Your task to perform on an android device: turn notification dots off Image 0: 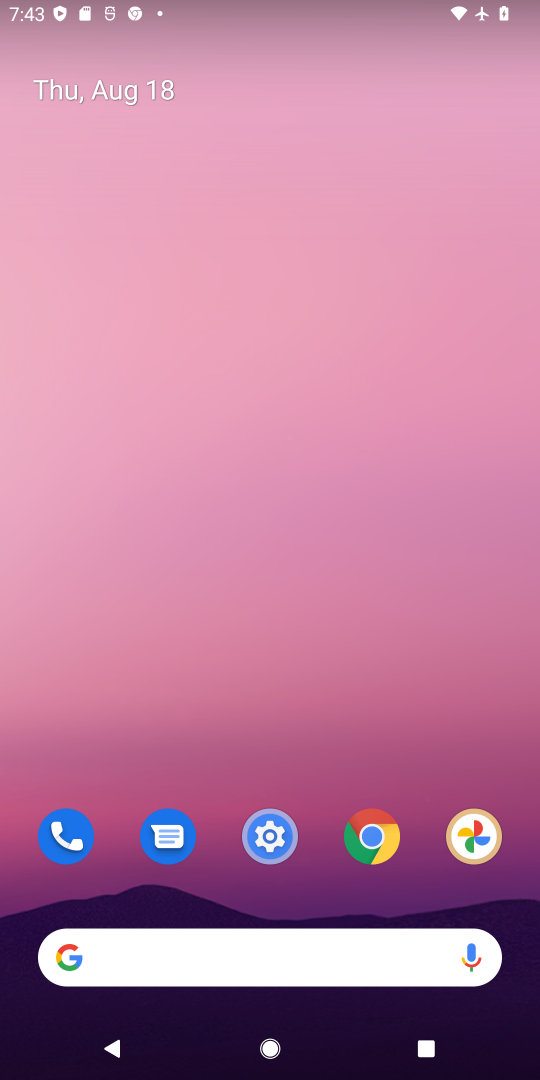
Step 0: drag from (318, 753) to (256, 144)
Your task to perform on an android device: turn notification dots off Image 1: 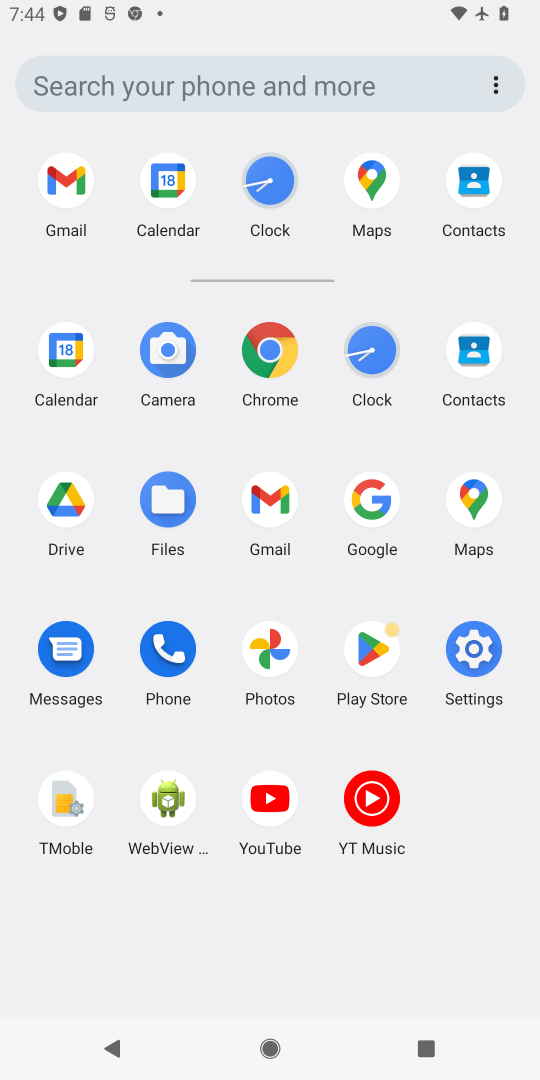
Step 1: click (465, 647)
Your task to perform on an android device: turn notification dots off Image 2: 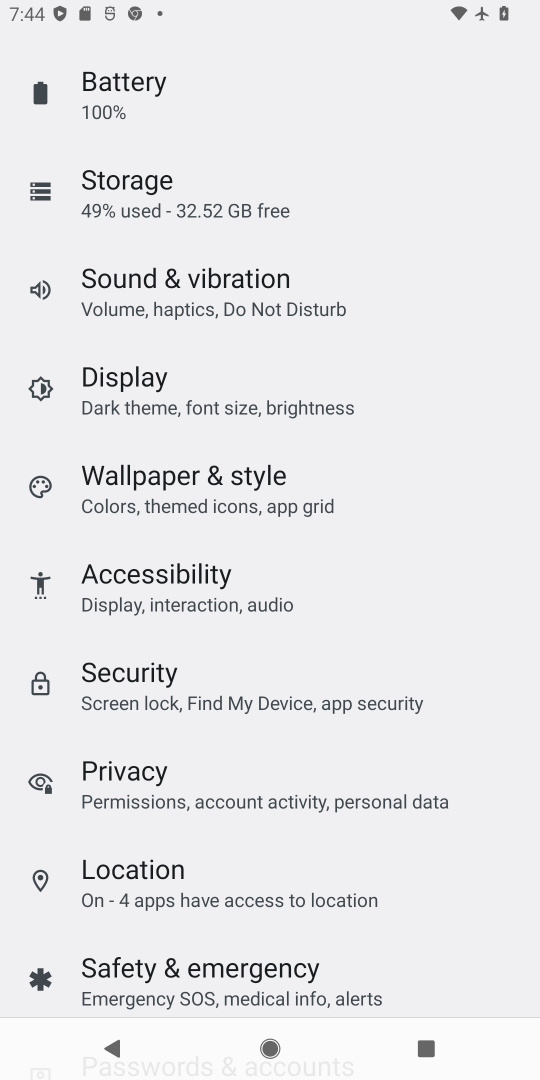
Step 2: drag from (373, 222) to (260, 801)
Your task to perform on an android device: turn notification dots off Image 3: 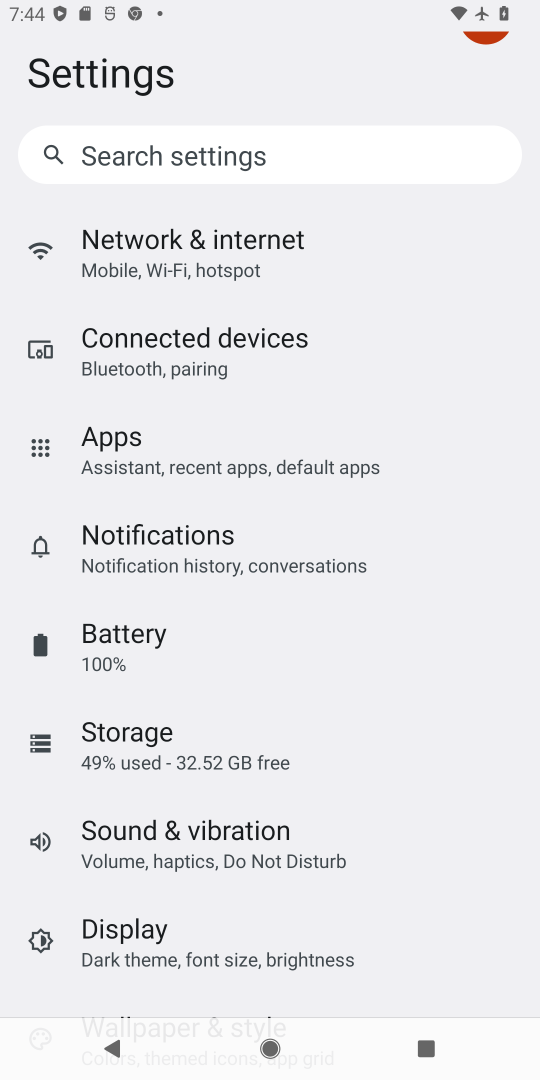
Step 3: click (196, 566)
Your task to perform on an android device: turn notification dots off Image 4: 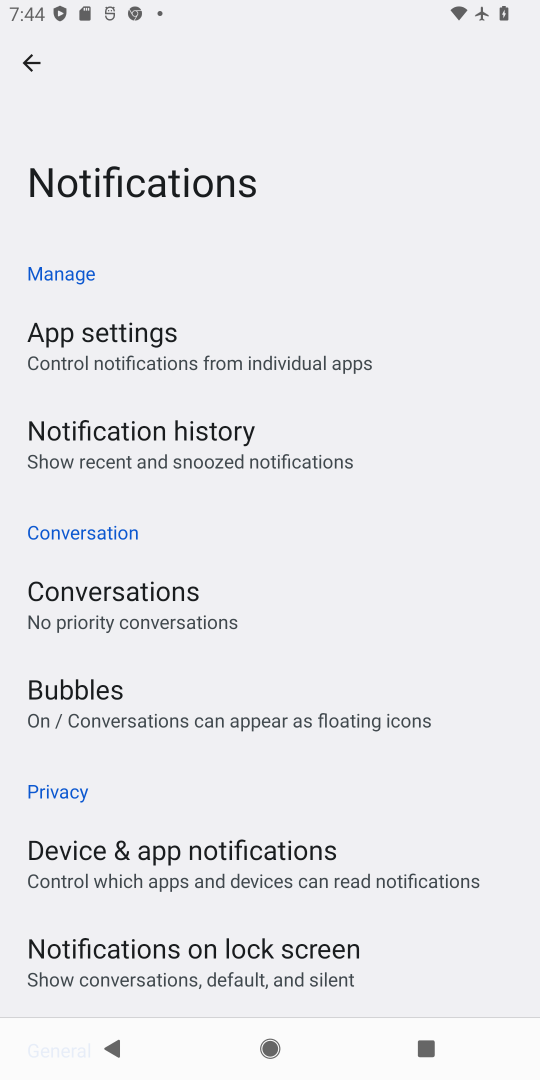
Step 4: drag from (279, 923) to (250, 422)
Your task to perform on an android device: turn notification dots off Image 5: 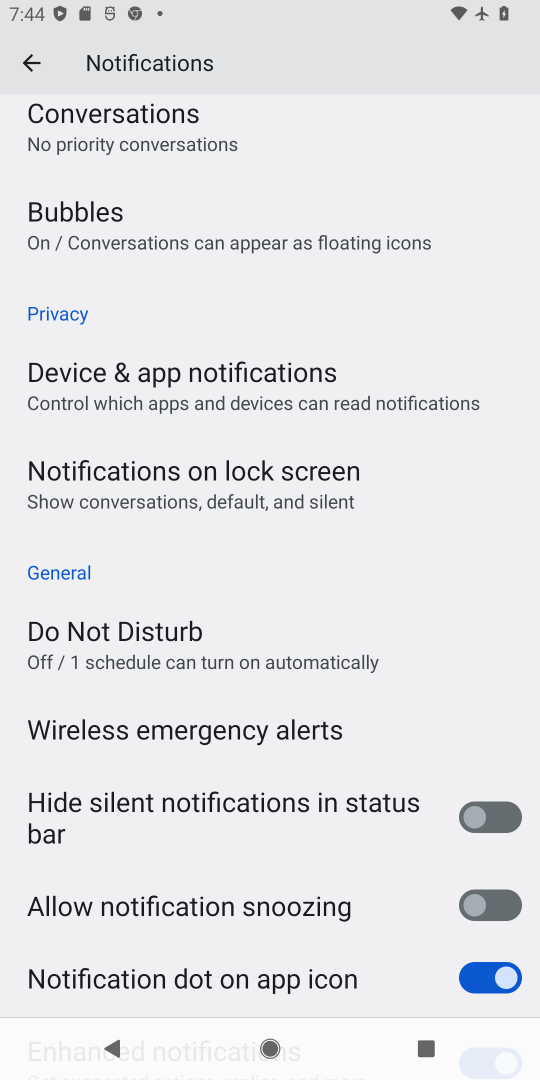
Step 5: click (487, 981)
Your task to perform on an android device: turn notification dots off Image 6: 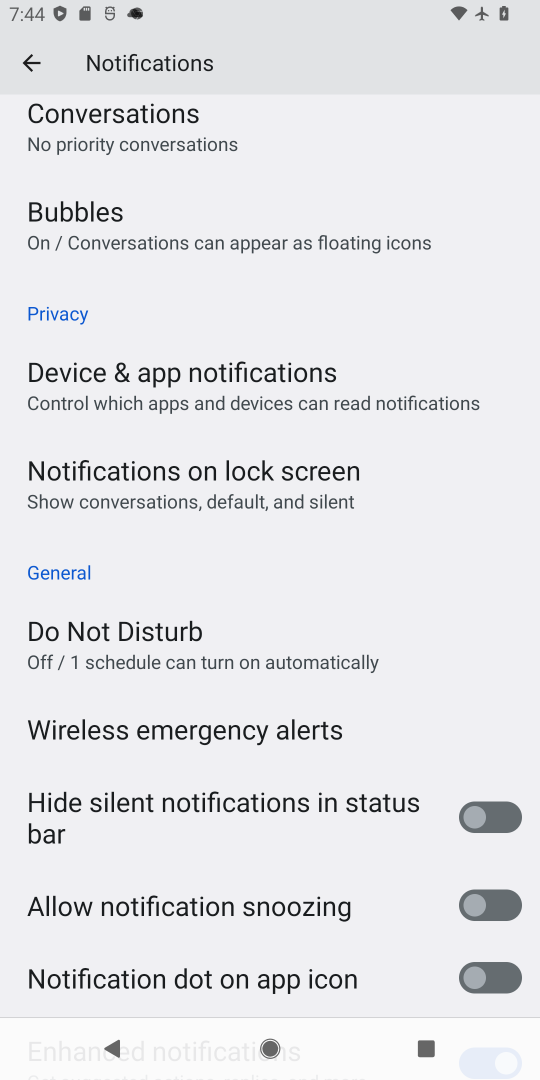
Step 6: task complete